Your task to perform on an android device: Open Reddit.com Image 0: 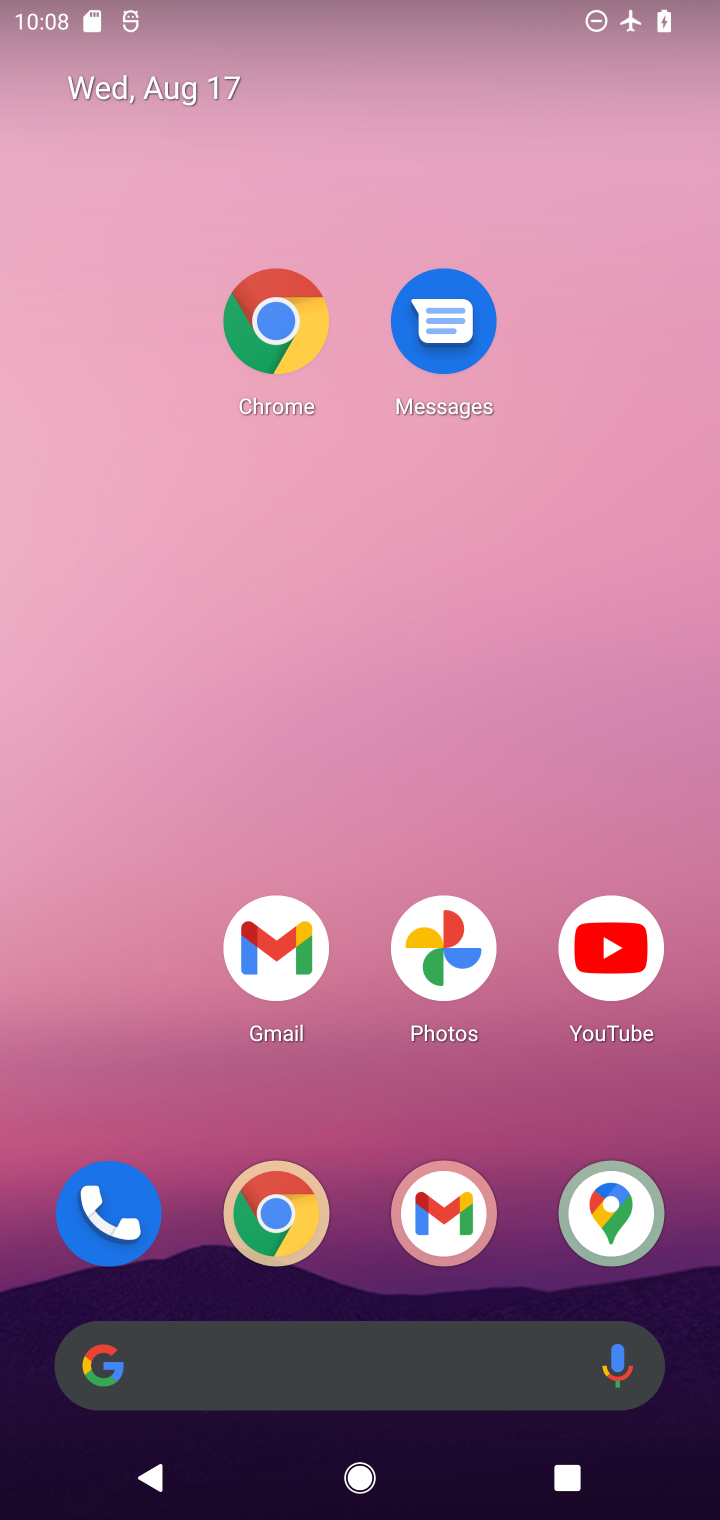
Step 0: click (258, 1208)
Your task to perform on an android device: Open Reddit.com Image 1: 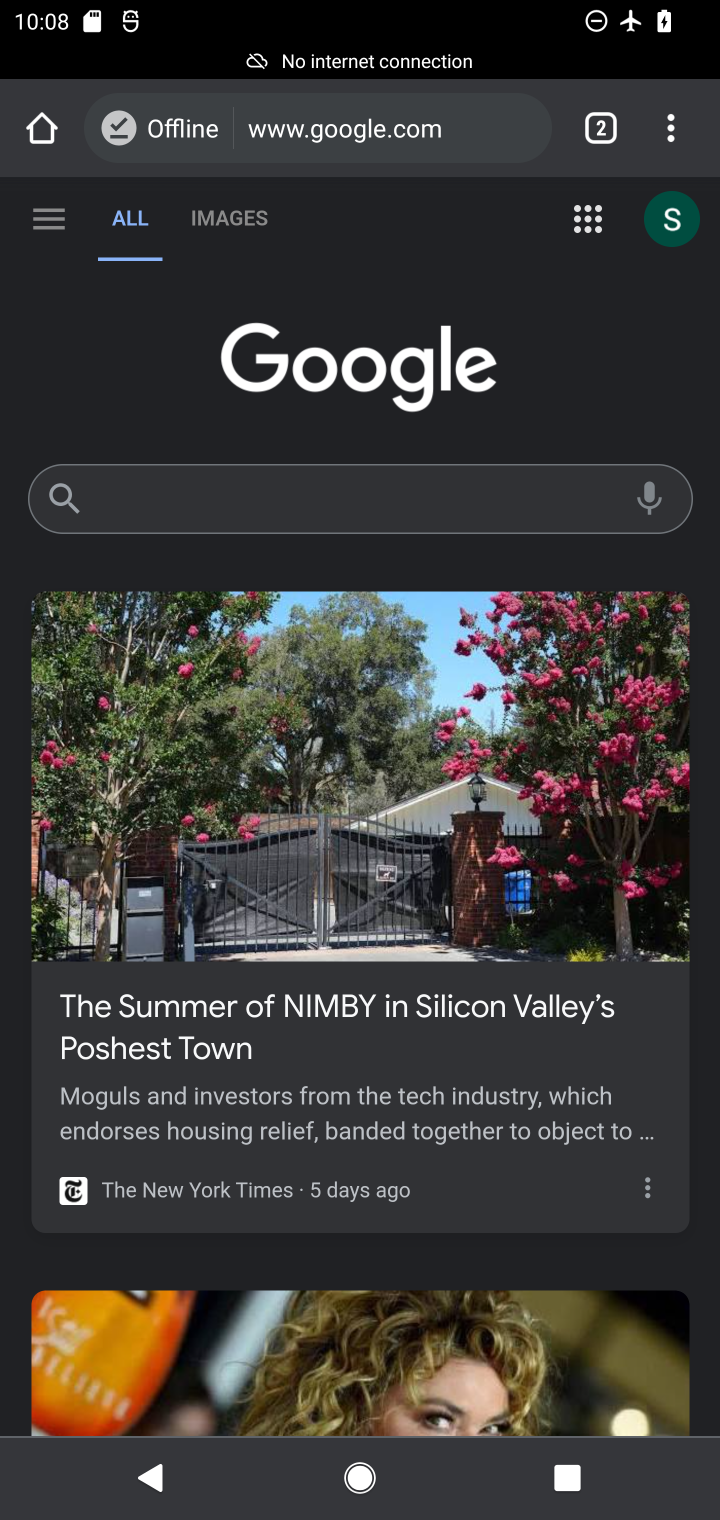
Step 1: click (237, 150)
Your task to perform on an android device: Open Reddit.com Image 2: 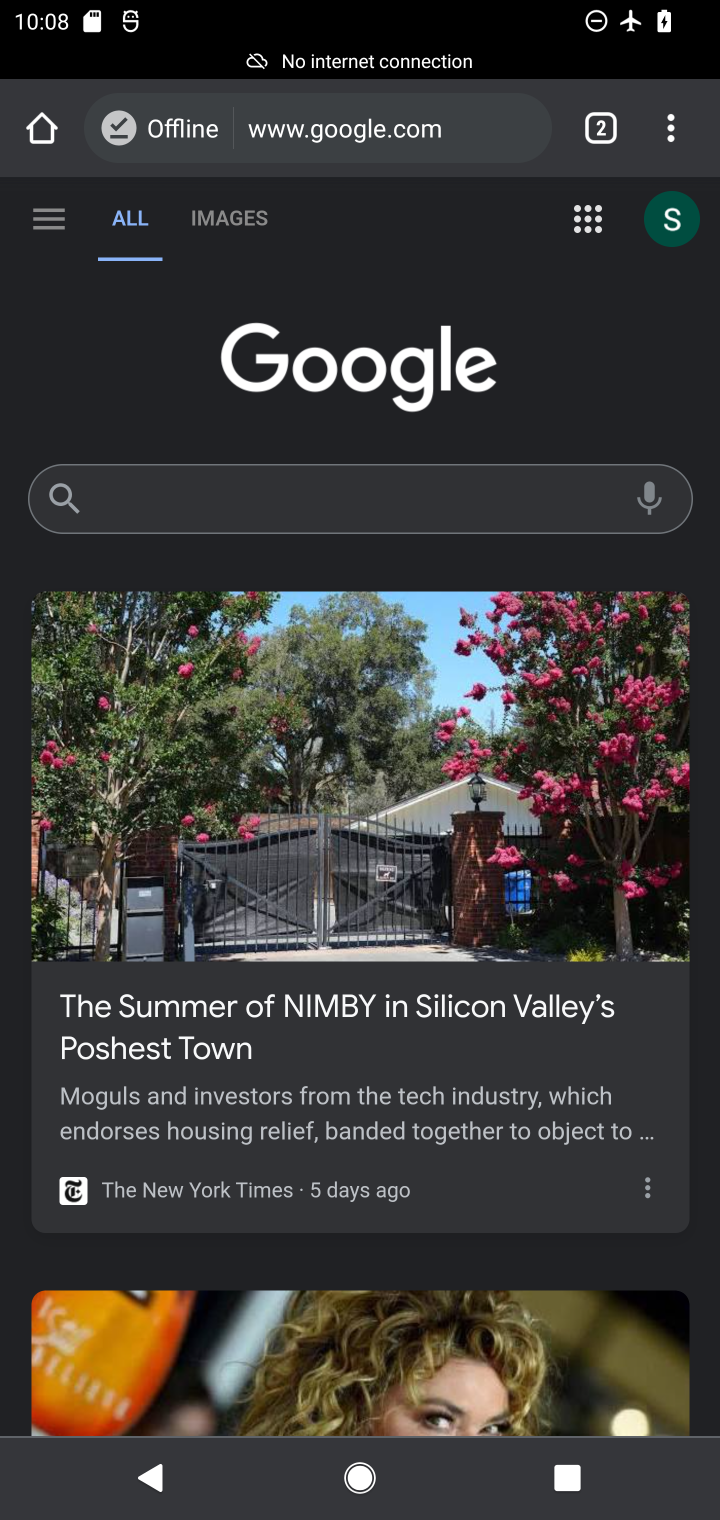
Step 2: click (279, 121)
Your task to perform on an android device: Open Reddit.com Image 3: 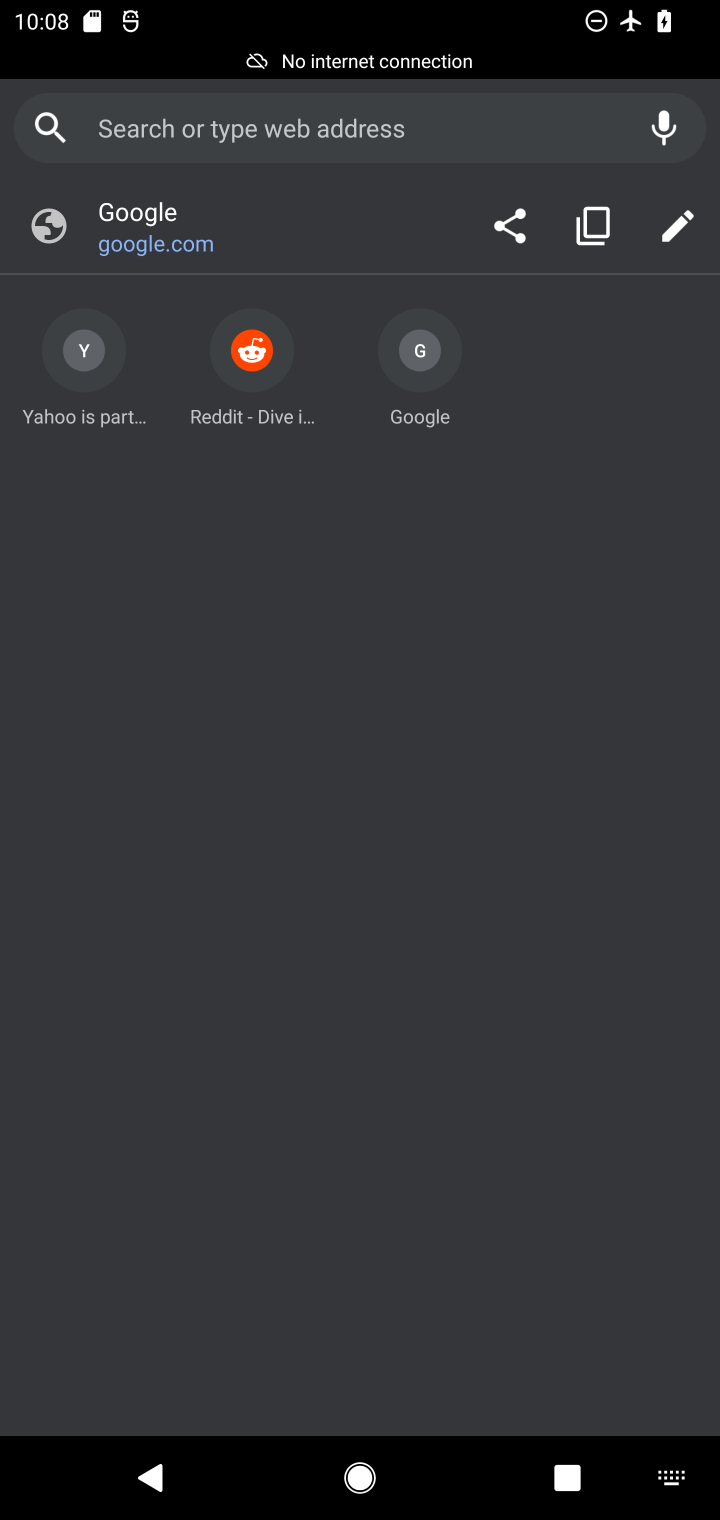
Step 3: click (274, 347)
Your task to perform on an android device: Open Reddit.com Image 4: 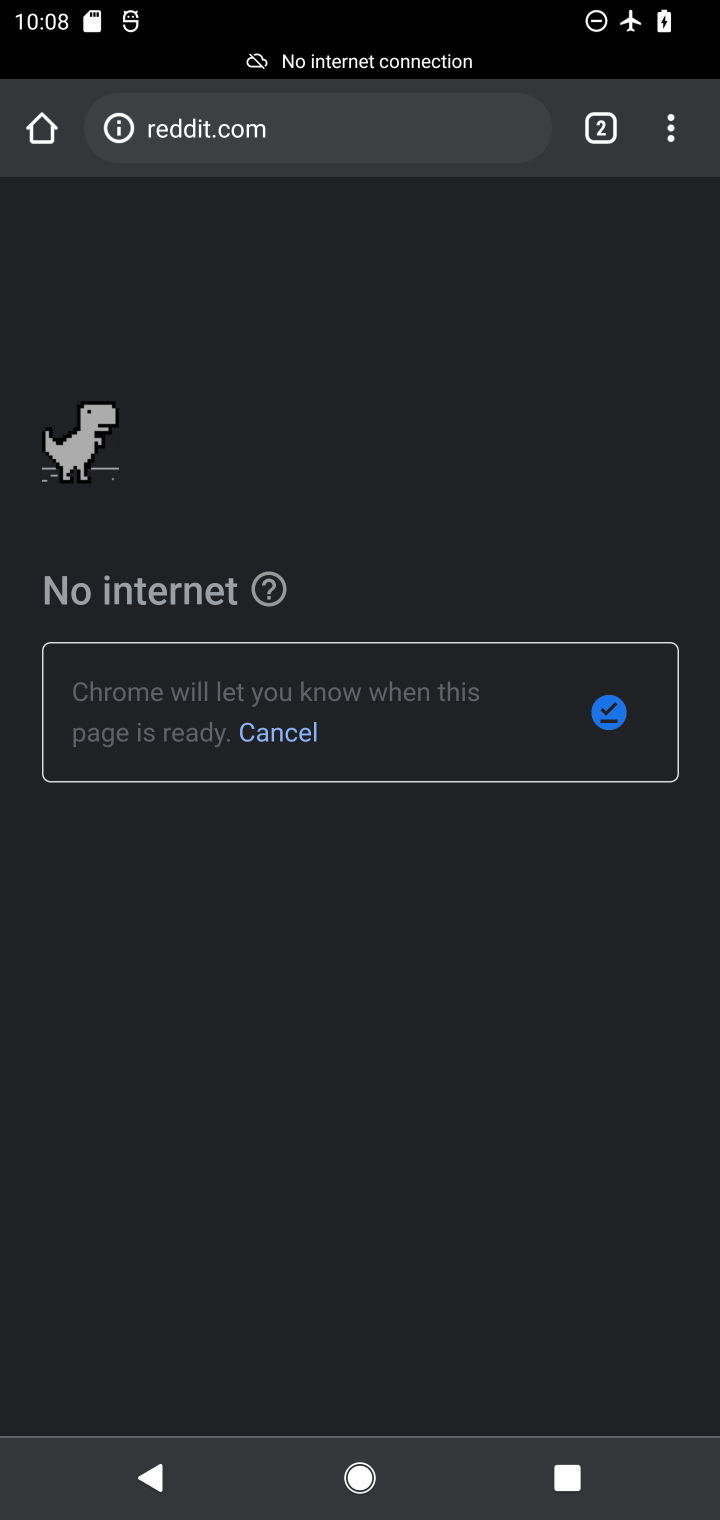
Step 4: task complete